Your task to perform on an android device: turn on javascript in the chrome app Image 0: 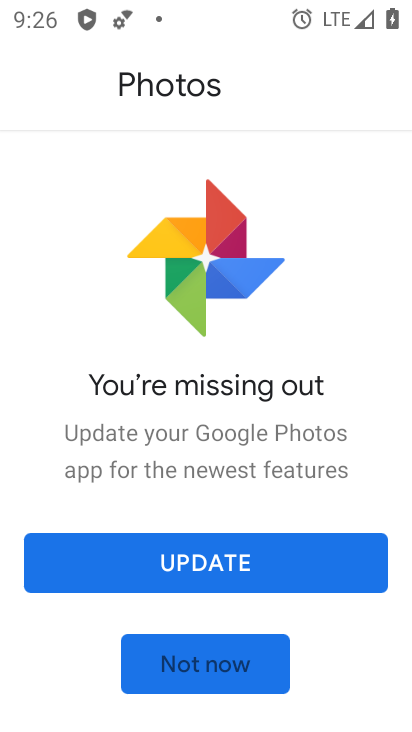
Step 0: press home button
Your task to perform on an android device: turn on javascript in the chrome app Image 1: 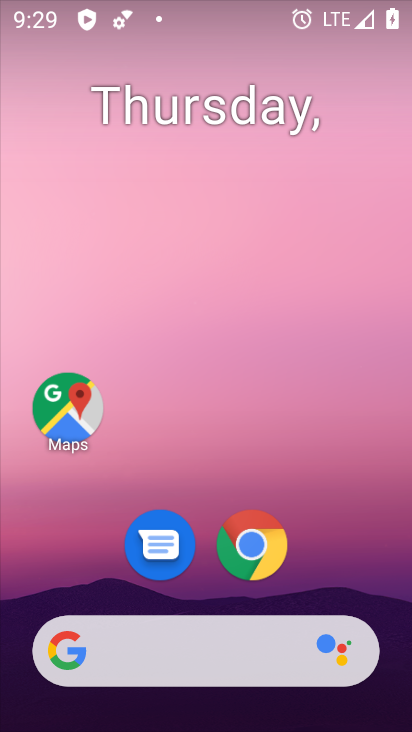
Step 1: click (265, 546)
Your task to perform on an android device: turn on javascript in the chrome app Image 2: 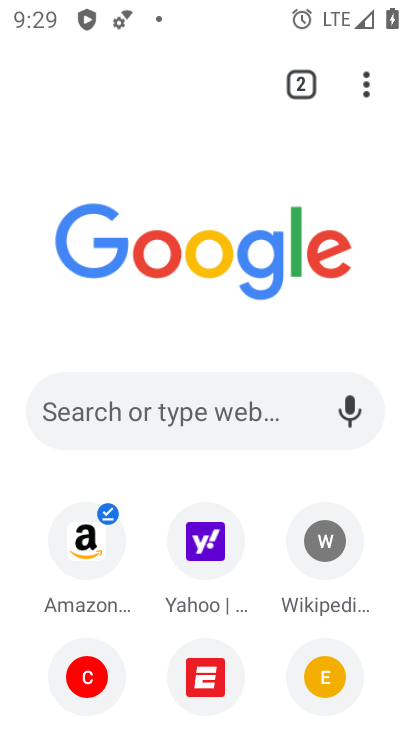
Step 2: click (367, 82)
Your task to perform on an android device: turn on javascript in the chrome app Image 3: 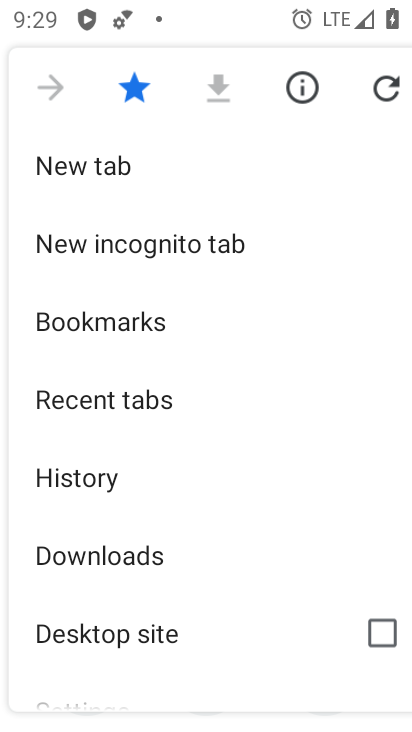
Step 3: drag from (214, 573) to (175, 414)
Your task to perform on an android device: turn on javascript in the chrome app Image 4: 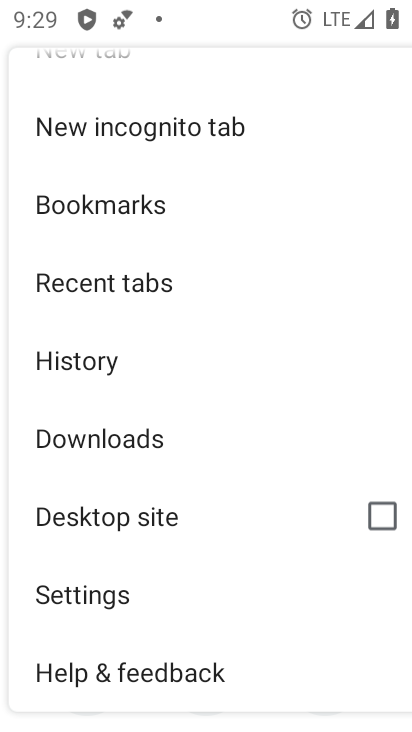
Step 4: click (92, 596)
Your task to perform on an android device: turn on javascript in the chrome app Image 5: 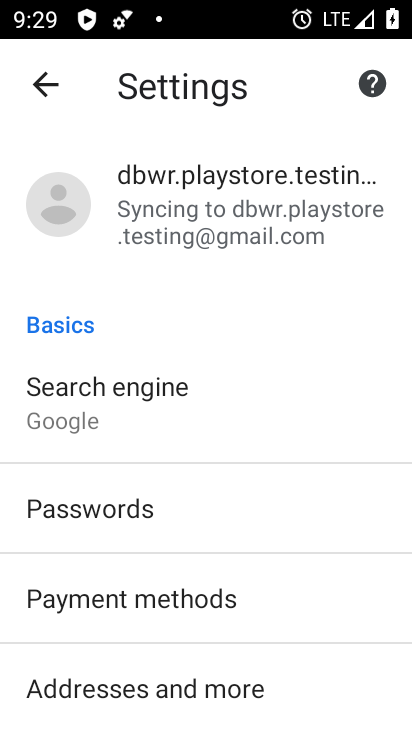
Step 5: drag from (329, 551) to (302, 154)
Your task to perform on an android device: turn on javascript in the chrome app Image 6: 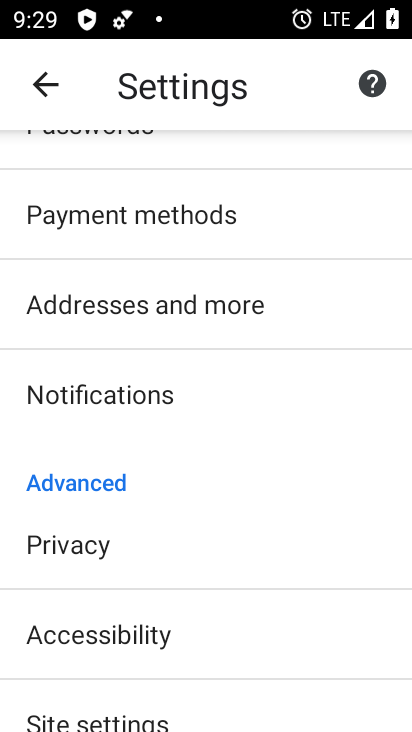
Step 6: drag from (178, 558) to (160, 189)
Your task to perform on an android device: turn on javascript in the chrome app Image 7: 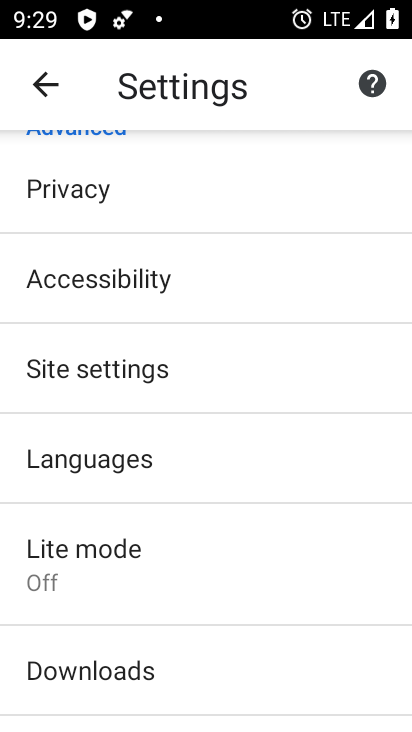
Step 7: click (153, 365)
Your task to perform on an android device: turn on javascript in the chrome app Image 8: 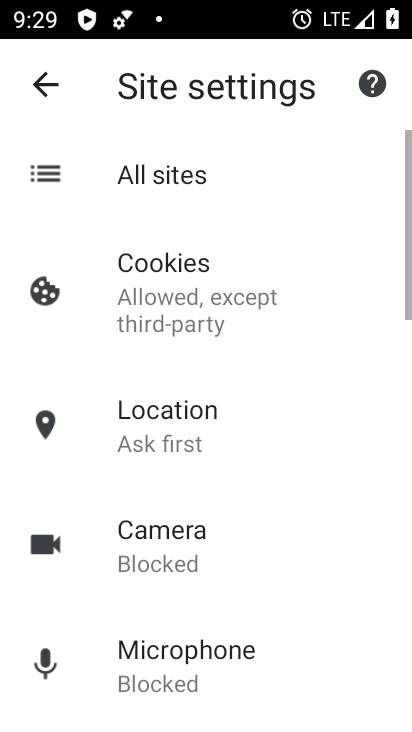
Step 8: drag from (183, 471) to (101, 179)
Your task to perform on an android device: turn on javascript in the chrome app Image 9: 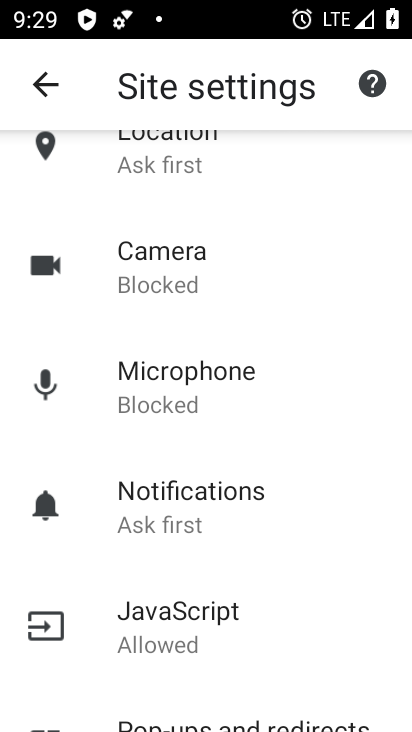
Step 9: click (180, 616)
Your task to perform on an android device: turn on javascript in the chrome app Image 10: 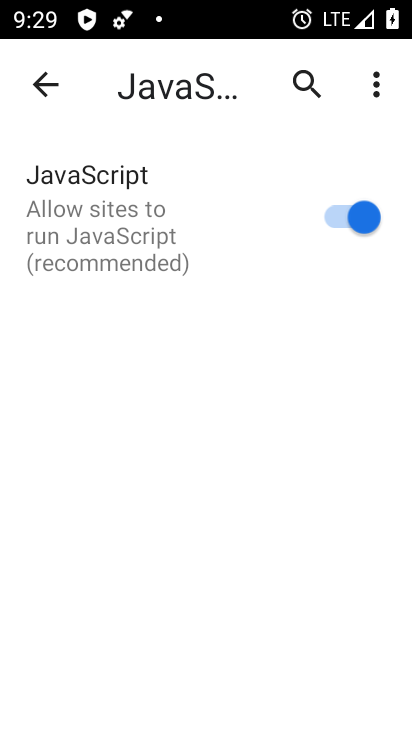
Step 10: task complete